Your task to perform on an android device: turn off priority inbox in the gmail app Image 0: 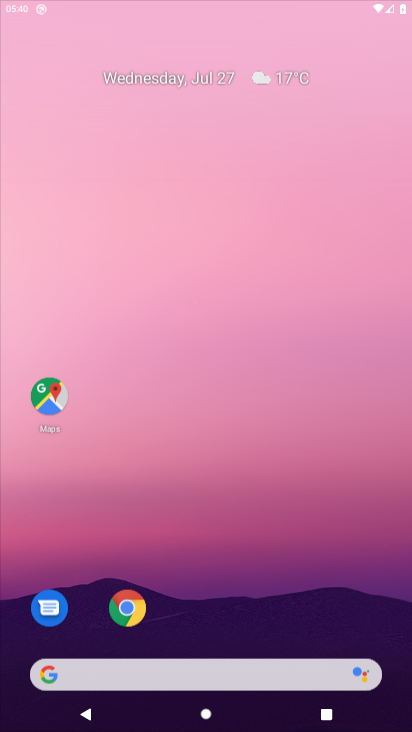
Step 0: press home button
Your task to perform on an android device: turn off priority inbox in the gmail app Image 1: 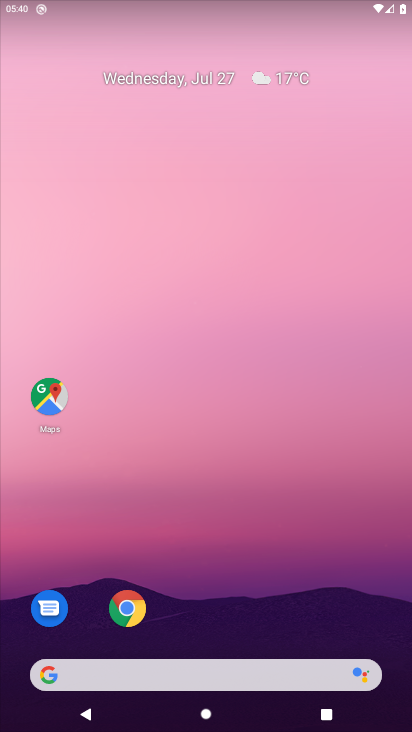
Step 1: drag from (204, 619) to (176, 4)
Your task to perform on an android device: turn off priority inbox in the gmail app Image 2: 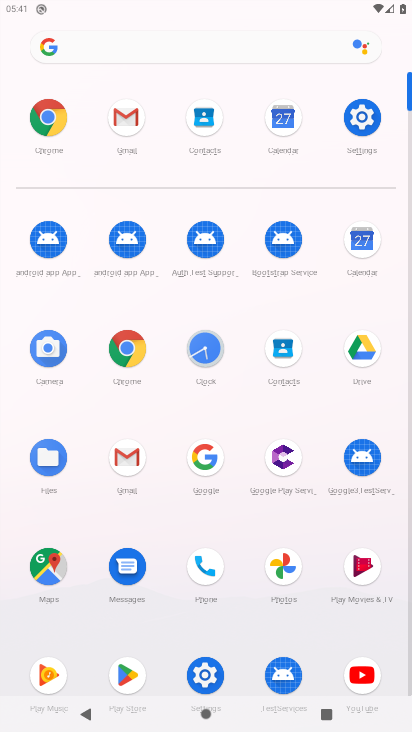
Step 2: click (127, 121)
Your task to perform on an android device: turn off priority inbox in the gmail app Image 3: 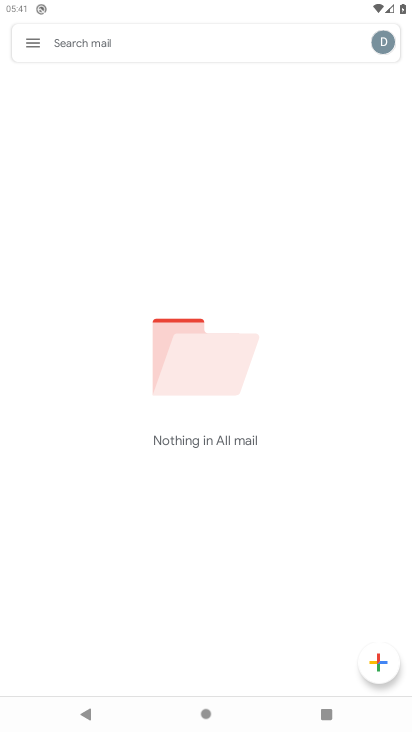
Step 3: click (33, 44)
Your task to perform on an android device: turn off priority inbox in the gmail app Image 4: 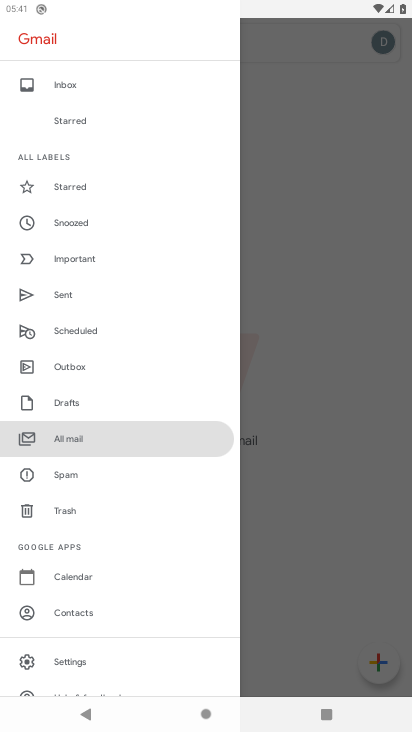
Step 4: click (71, 663)
Your task to perform on an android device: turn off priority inbox in the gmail app Image 5: 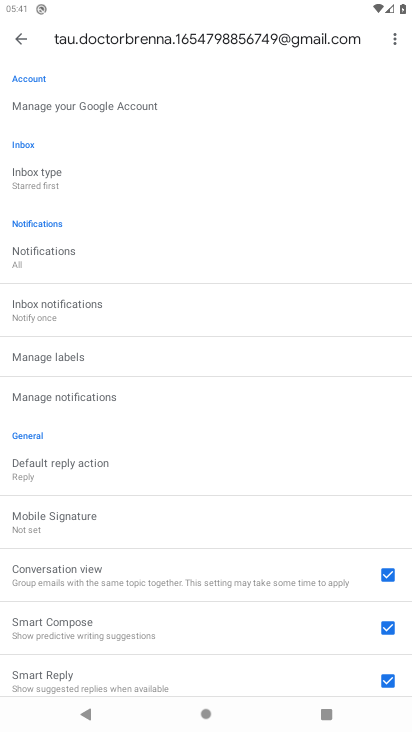
Step 5: click (26, 178)
Your task to perform on an android device: turn off priority inbox in the gmail app Image 6: 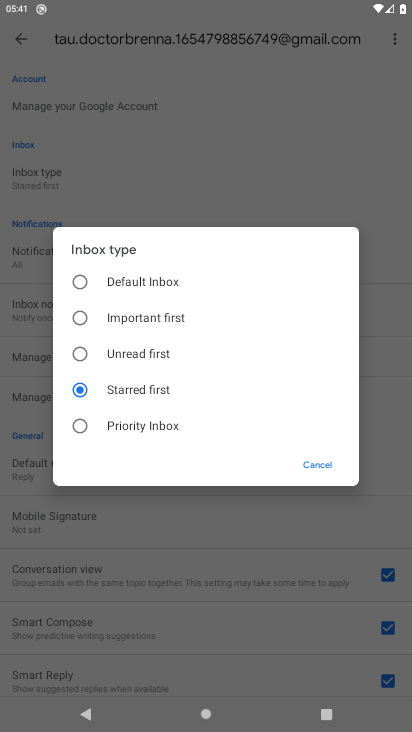
Step 6: task complete